Your task to perform on an android device: set an alarm Image 0: 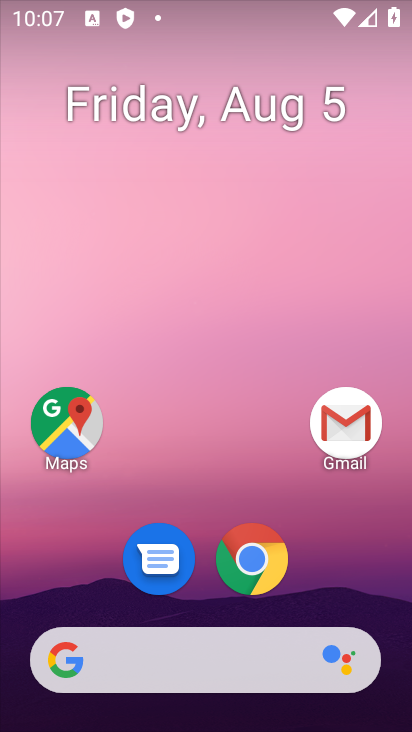
Step 0: drag from (185, 477) to (192, 0)
Your task to perform on an android device: set an alarm Image 1: 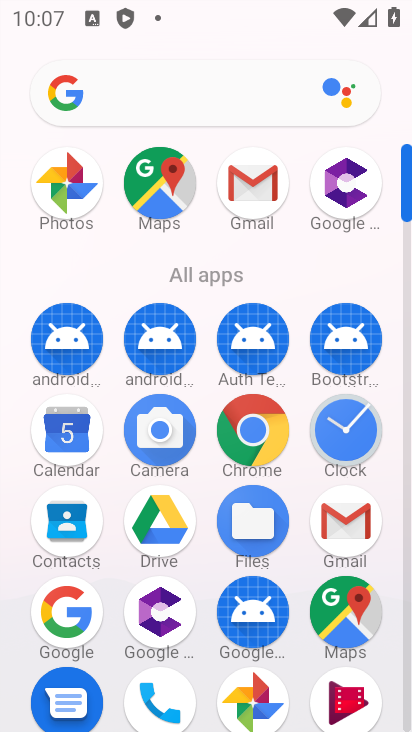
Step 1: drag from (130, 532) to (110, 156)
Your task to perform on an android device: set an alarm Image 2: 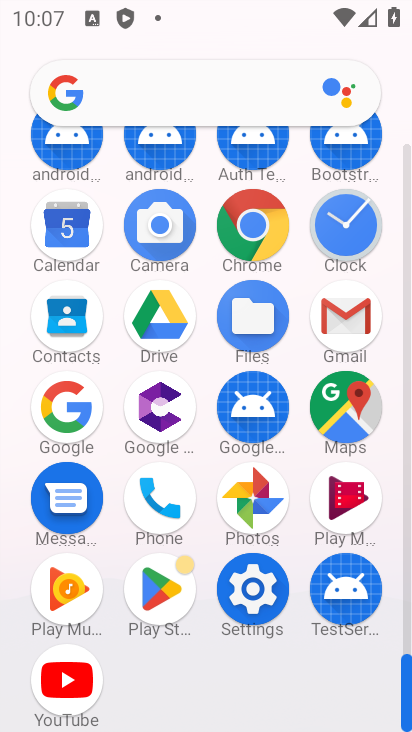
Step 2: drag from (228, 249) to (267, 398)
Your task to perform on an android device: set an alarm Image 3: 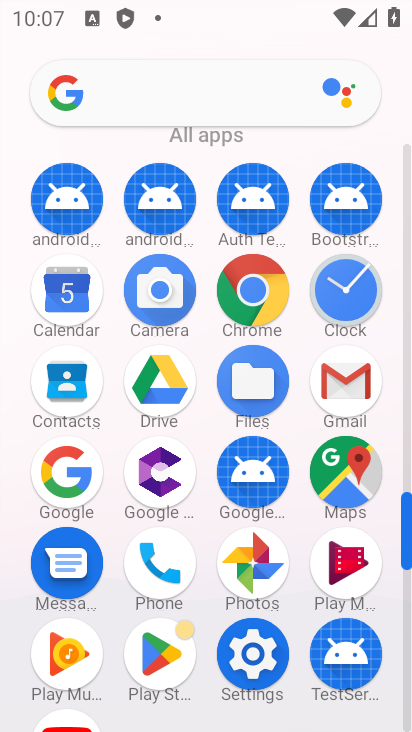
Step 3: drag from (339, 291) to (96, 188)
Your task to perform on an android device: set an alarm Image 4: 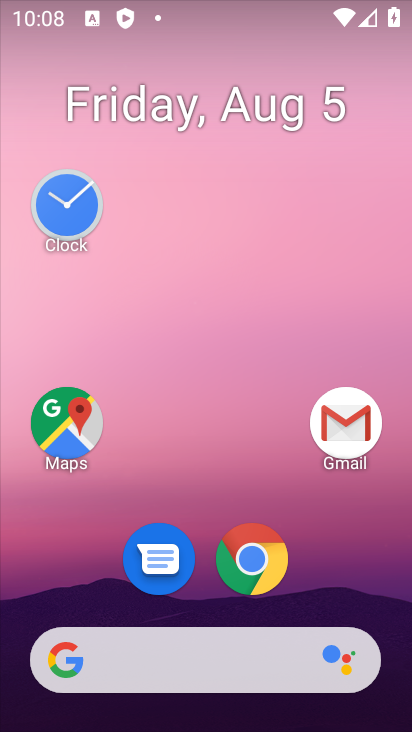
Step 4: click (83, 200)
Your task to perform on an android device: set an alarm Image 5: 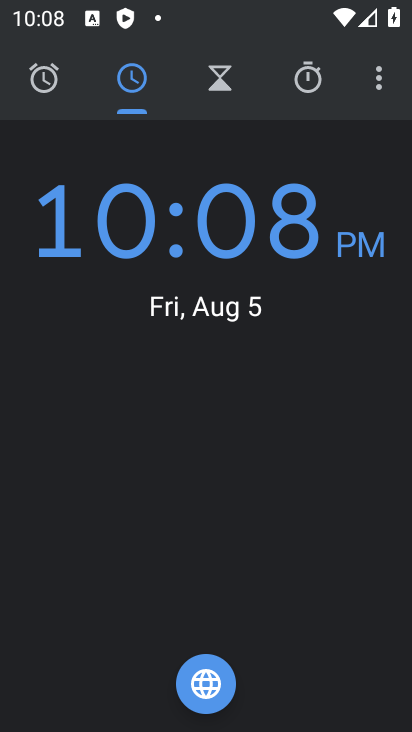
Step 5: click (42, 85)
Your task to perform on an android device: set an alarm Image 6: 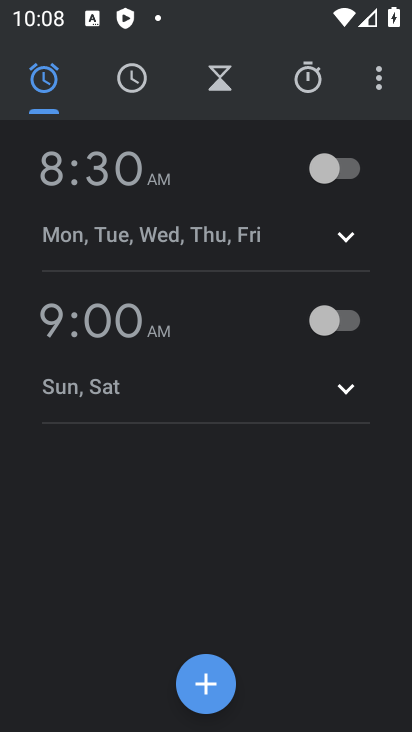
Step 6: click (297, 171)
Your task to perform on an android device: set an alarm Image 7: 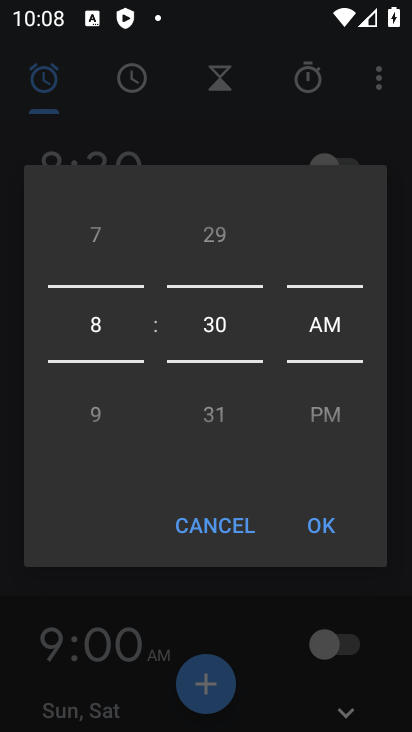
Step 7: click (316, 540)
Your task to perform on an android device: set an alarm Image 8: 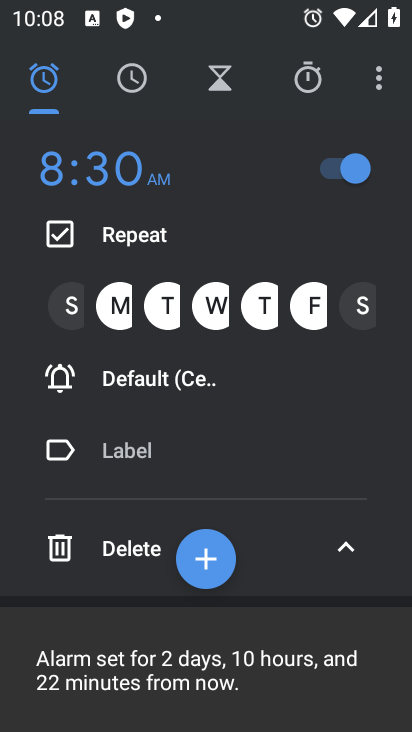
Step 8: task complete